Your task to perform on an android device: make emails show in primary in the gmail app Image 0: 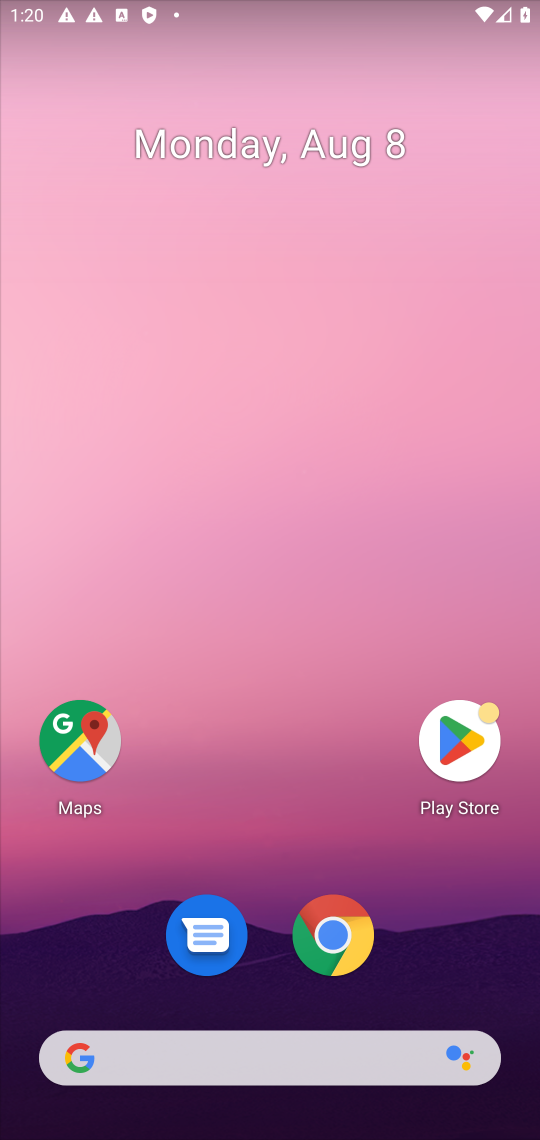
Step 0: drag from (277, 1035) to (300, 7)
Your task to perform on an android device: make emails show in primary in the gmail app Image 1: 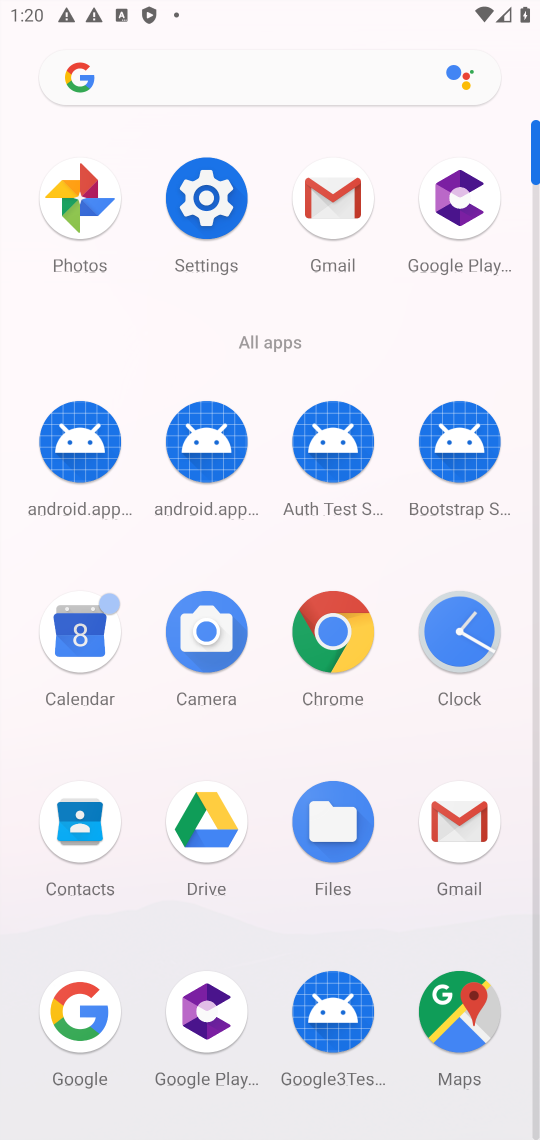
Step 1: click (480, 837)
Your task to perform on an android device: make emails show in primary in the gmail app Image 2: 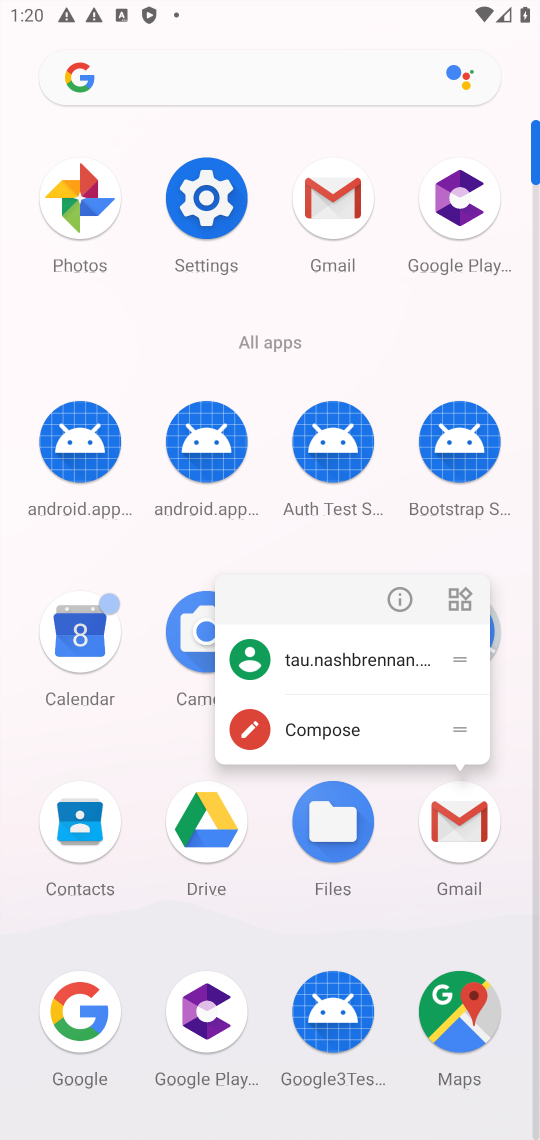
Step 2: click (468, 845)
Your task to perform on an android device: make emails show in primary in the gmail app Image 3: 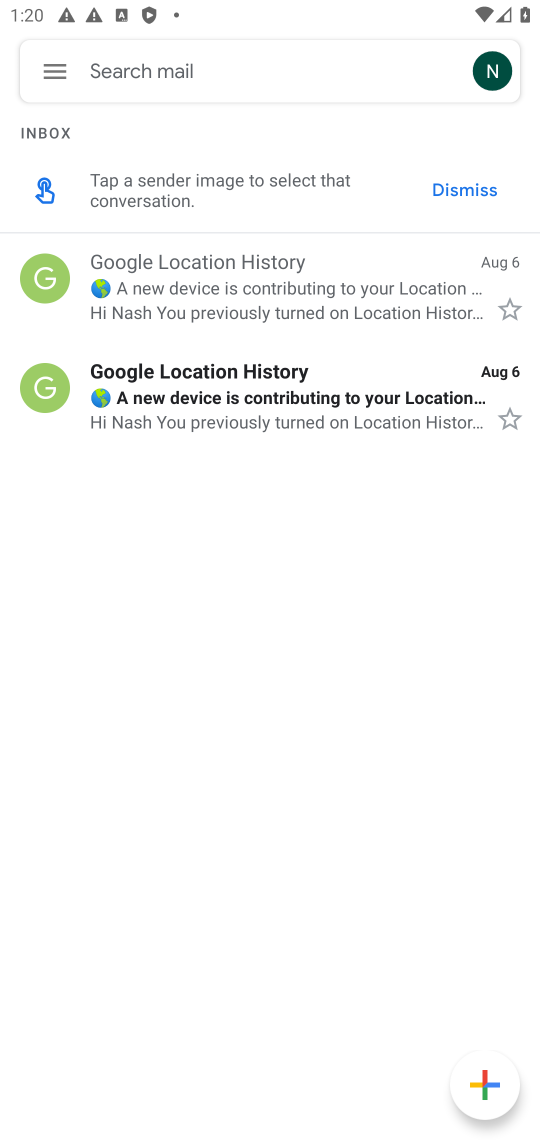
Step 3: click (56, 59)
Your task to perform on an android device: make emails show in primary in the gmail app Image 4: 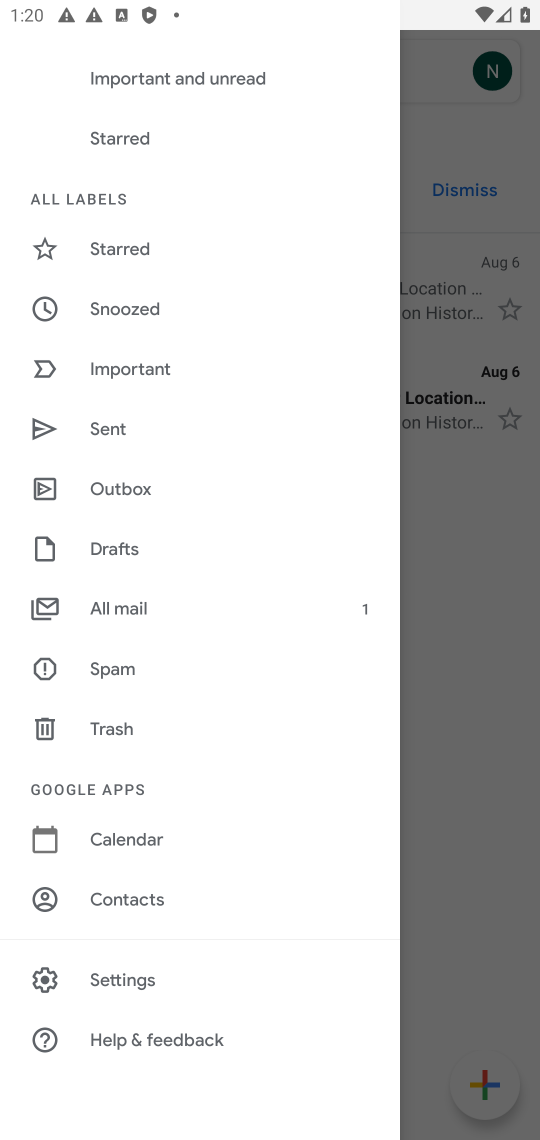
Step 4: click (56, 59)
Your task to perform on an android device: make emails show in primary in the gmail app Image 5: 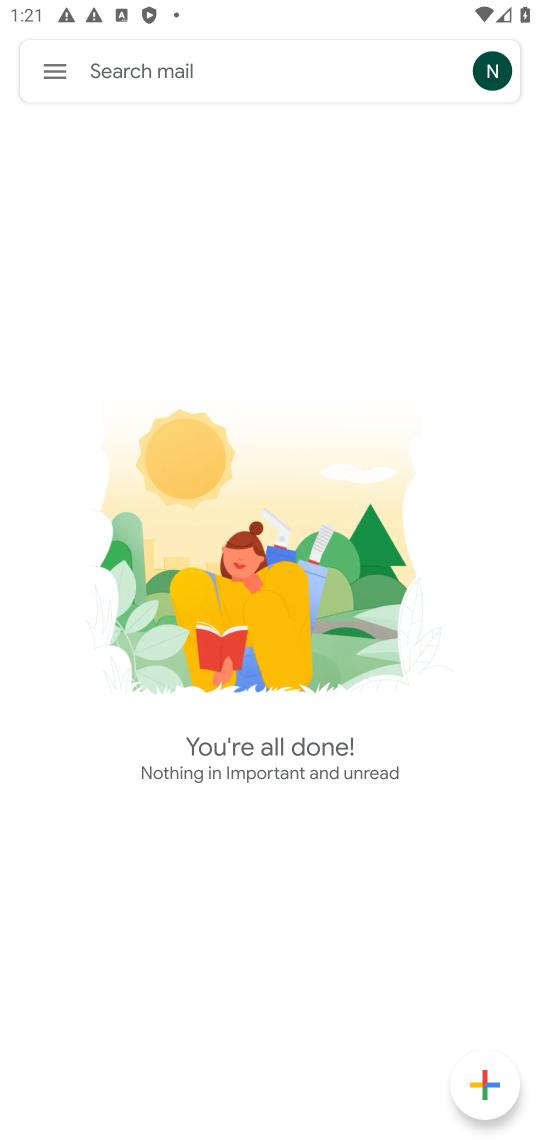
Step 5: click (47, 62)
Your task to perform on an android device: make emails show in primary in the gmail app Image 6: 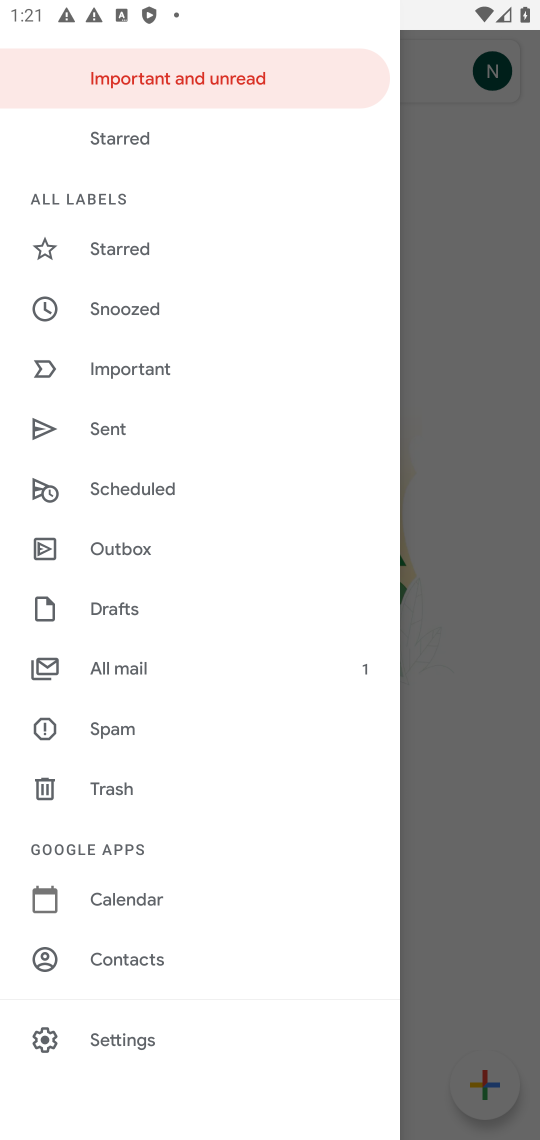
Step 6: click (47, 59)
Your task to perform on an android device: make emails show in primary in the gmail app Image 7: 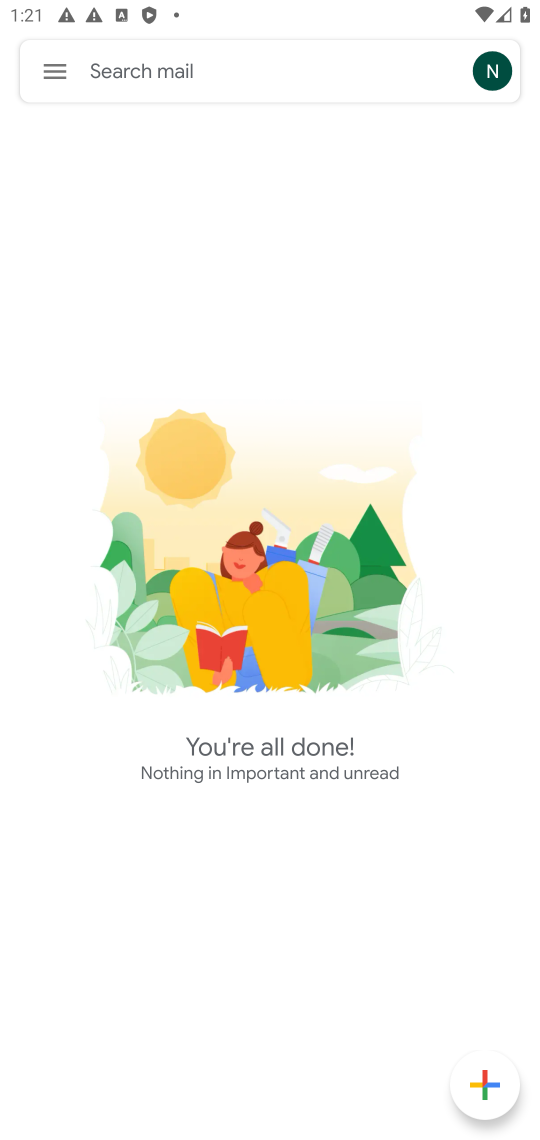
Step 7: click (62, 89)
Your task to perform on an android device: make emails show in primary in the gmail app Image 8: 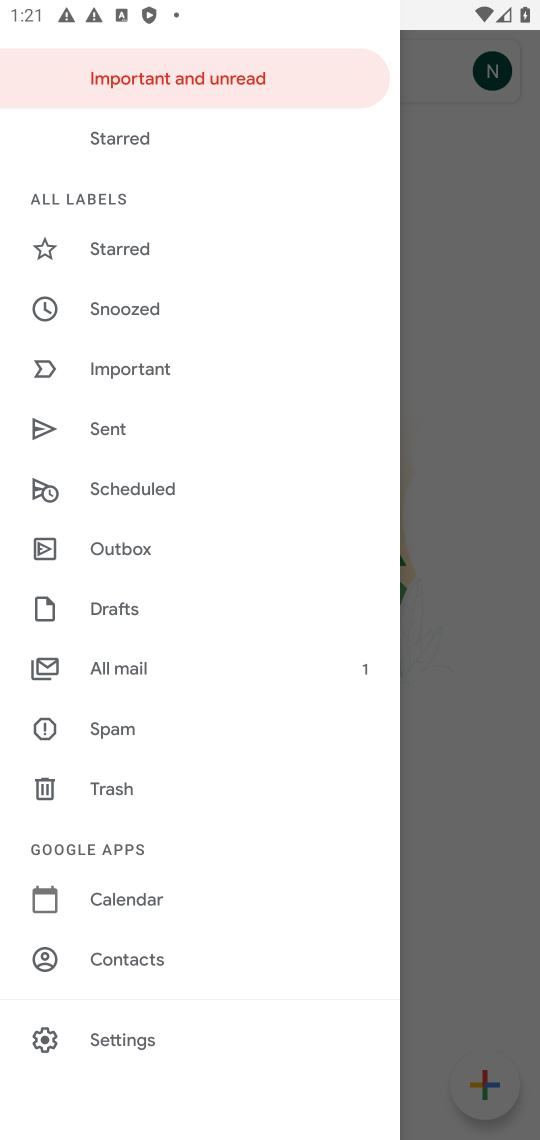
Step 8: task complete